Your task to perform on an android device: Open Chrome and go to settings Image 0: 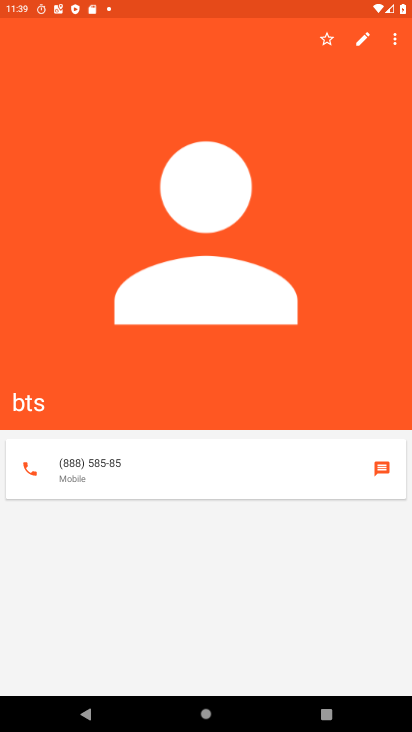
Step 0: press home button
Your task to perform on an android device: Open Chrome and go to settings Image 1: 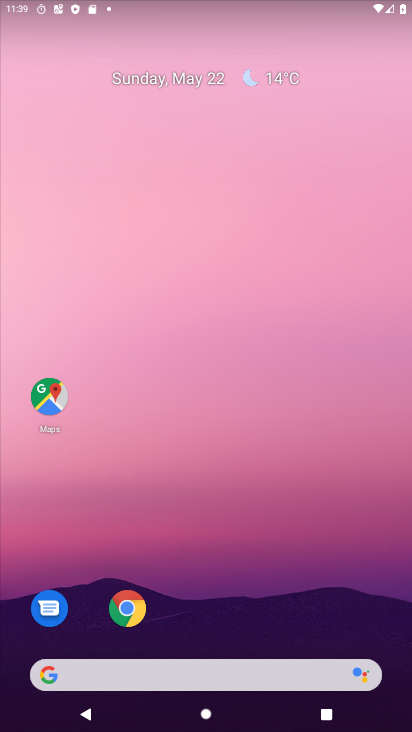
Step 1: click (126, 608)
Your task to perform on an android device: Open Chrome and go to settings Image 2: 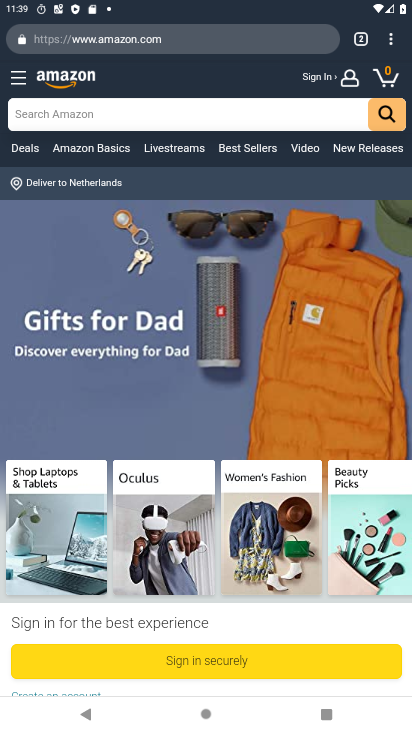
Step 2: click (393, 45)
Your task to perform on an android device: Open Chrome and go to settings Image 3: 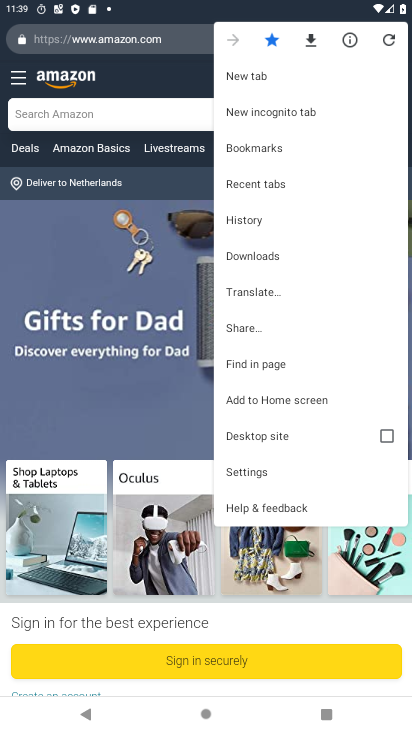
Step 3: click (256, 467)
Your task to perform on an android device: Open Chrome and go to settings Image 4: 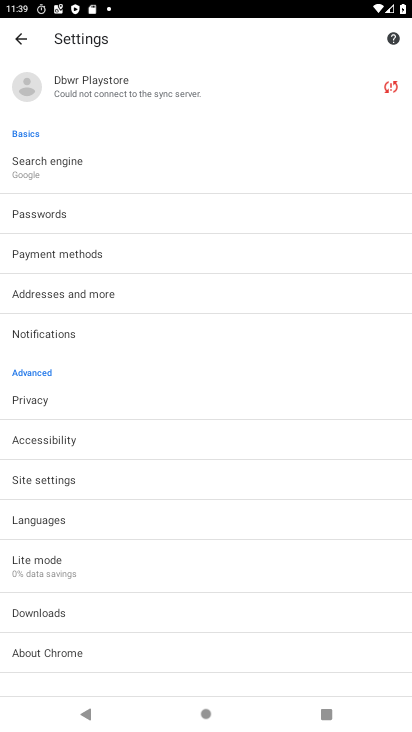
Step 4: task complete